Your task to perform on an android device: Open Amazon Image 0: 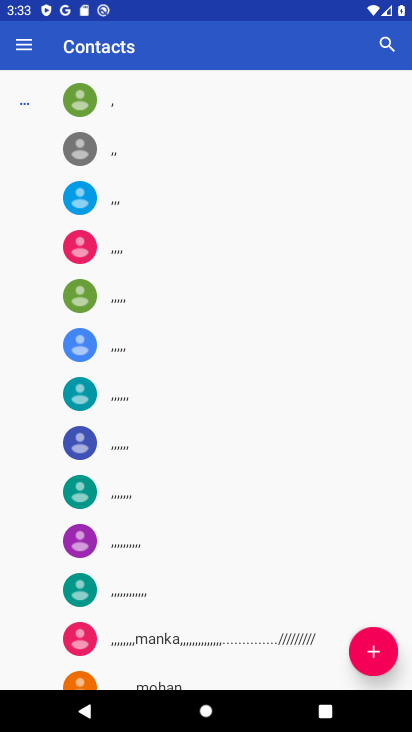
Step 0: press home button
Your task to perform on an android device: Open Amazon Image 1: 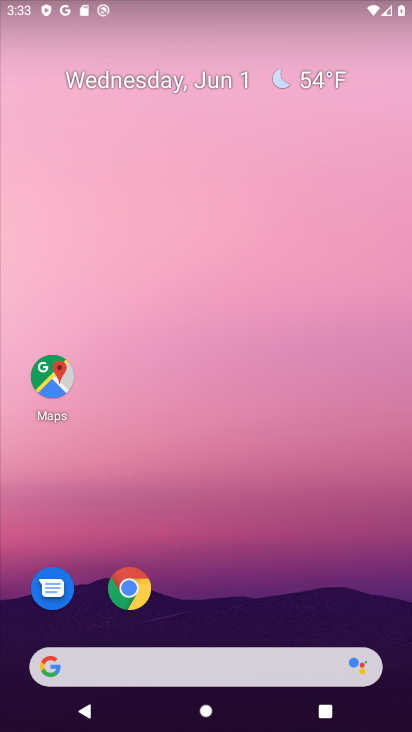
Step 1: click (135, 584)
Your task to perform on an android device: Open Amazon Image 2: 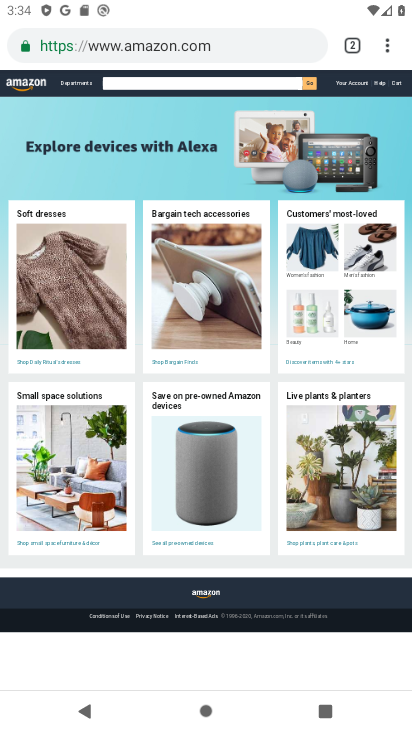
Step 2: task complete